Your task to perform on an android device: What's on my calendar today? Image 0: 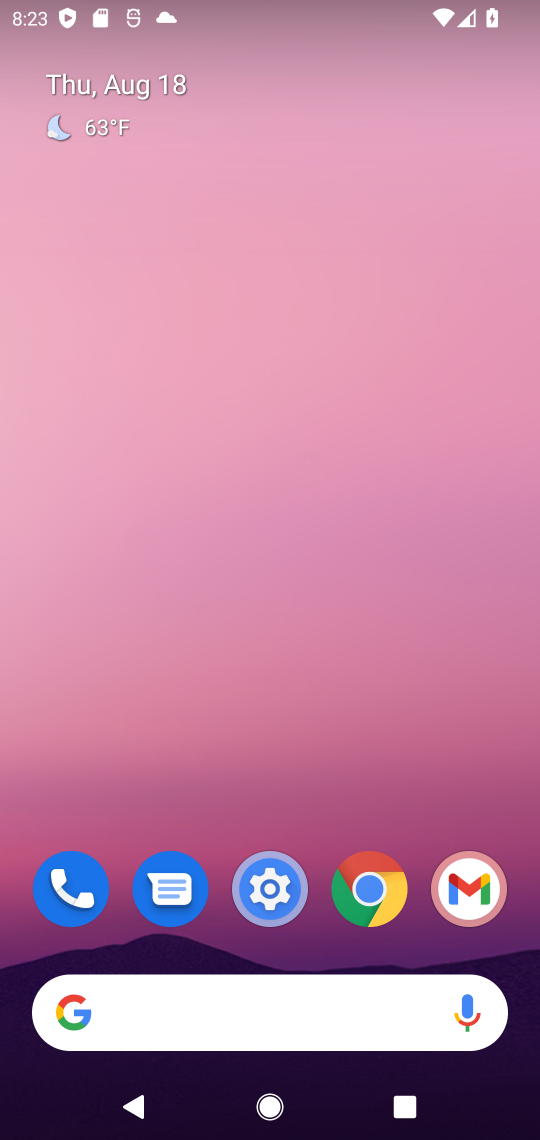
Step 0: drag from (315, 953) to (269, 212)
Your task to perform on an android device: What's on my calendar today? Image 1: 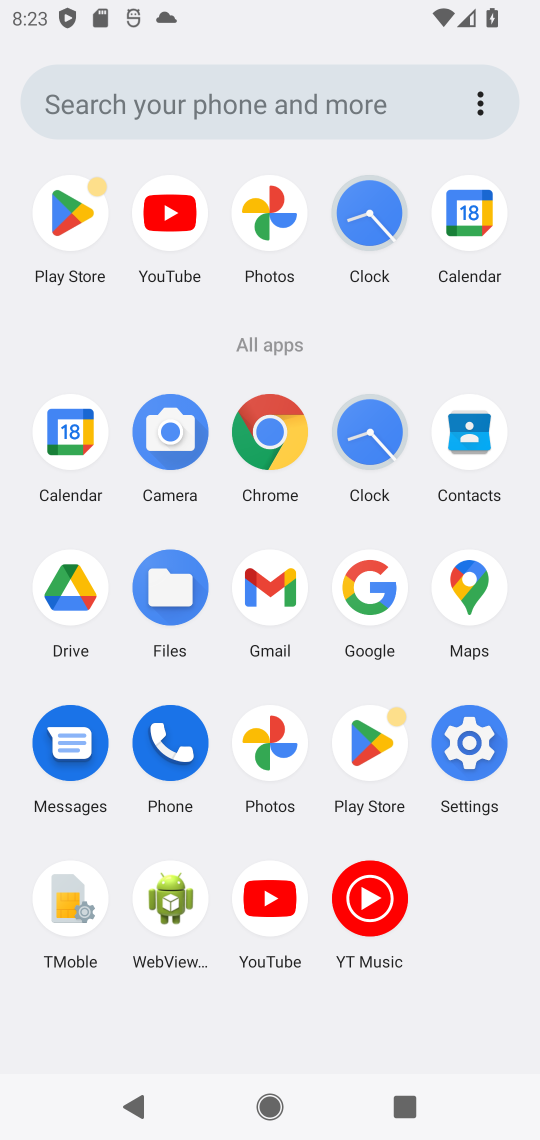
Step 1: drag from (312, 953) to (443, 215)
Your task to perform on an android device: What's on my calendar today? Image 2: 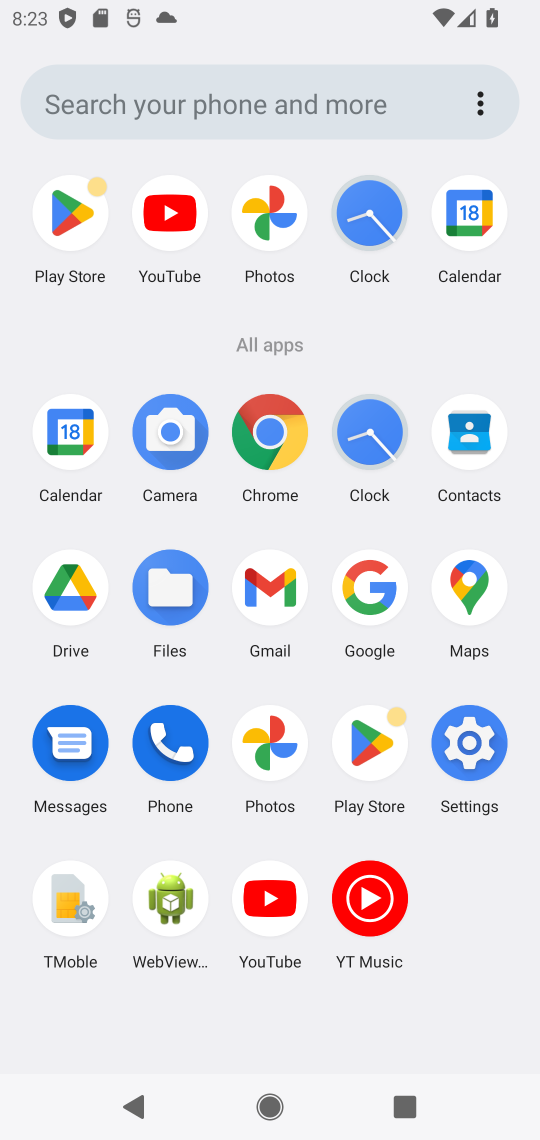
Step 2: click (473, 225)
Your task to perform on an android device: What's on my calendar today? Image 3: 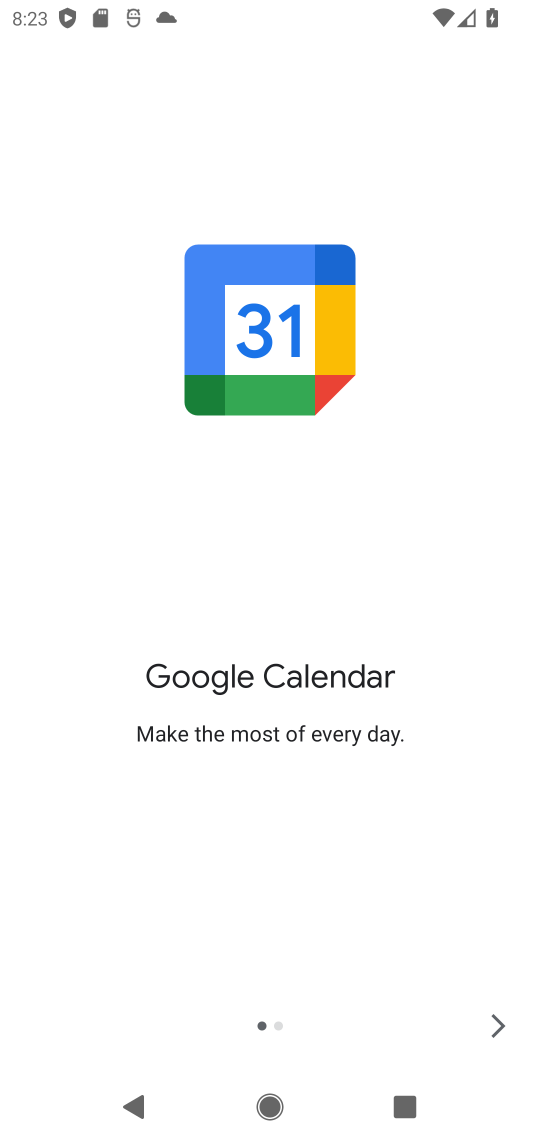
Step 3: click (494, 1031)
Your task to perform on an android device: What's on my calendar today? Image 4: 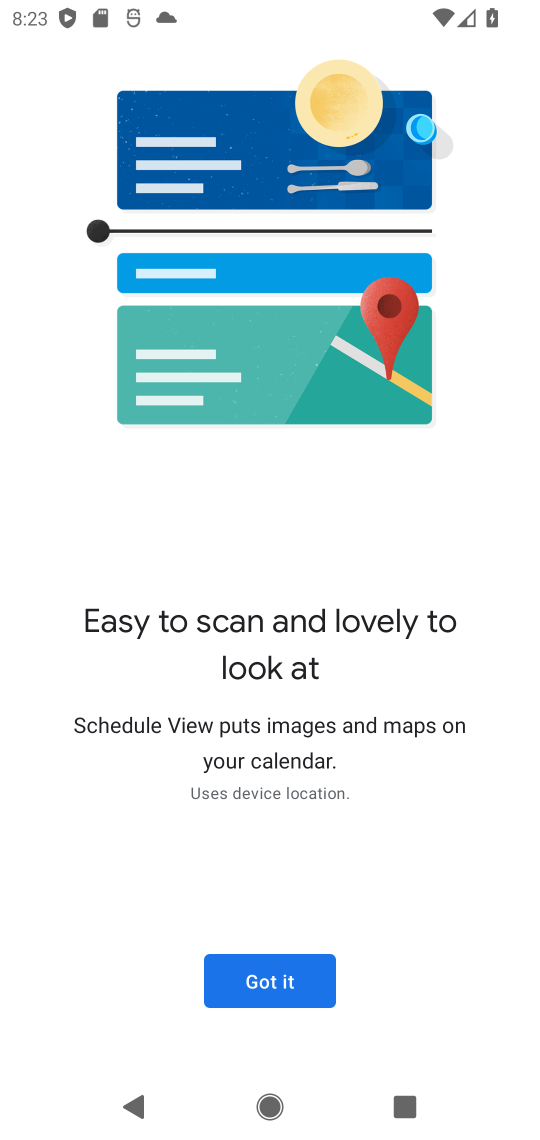
Step 4: click (262, 972)
Your task to perform on an android device: What's on my calendar today? Image 5: 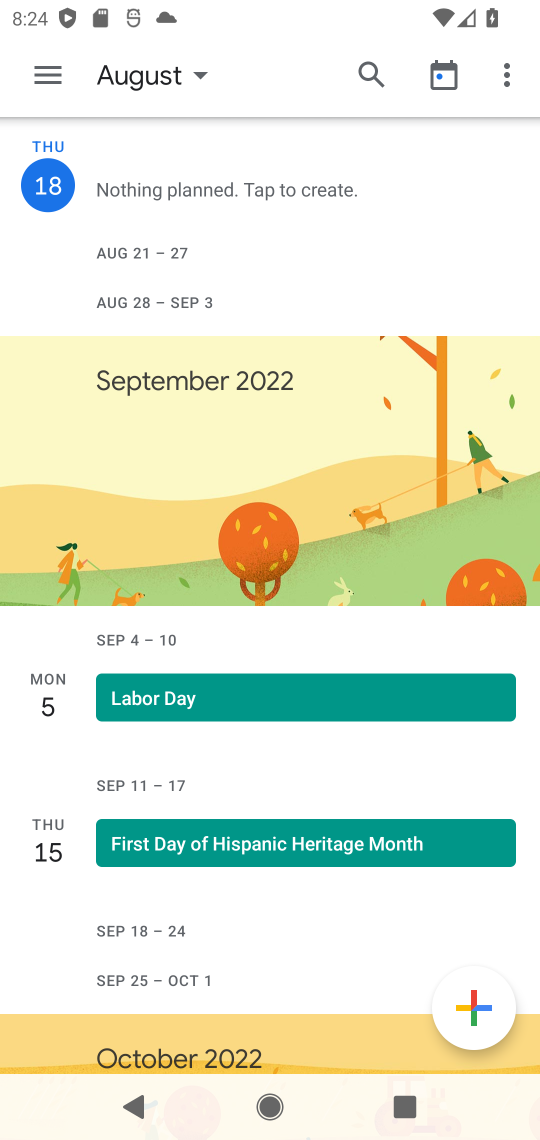
Step 5: click (191, 81)
Your task to perform on an android device: What's on my calendar today? Image 6: 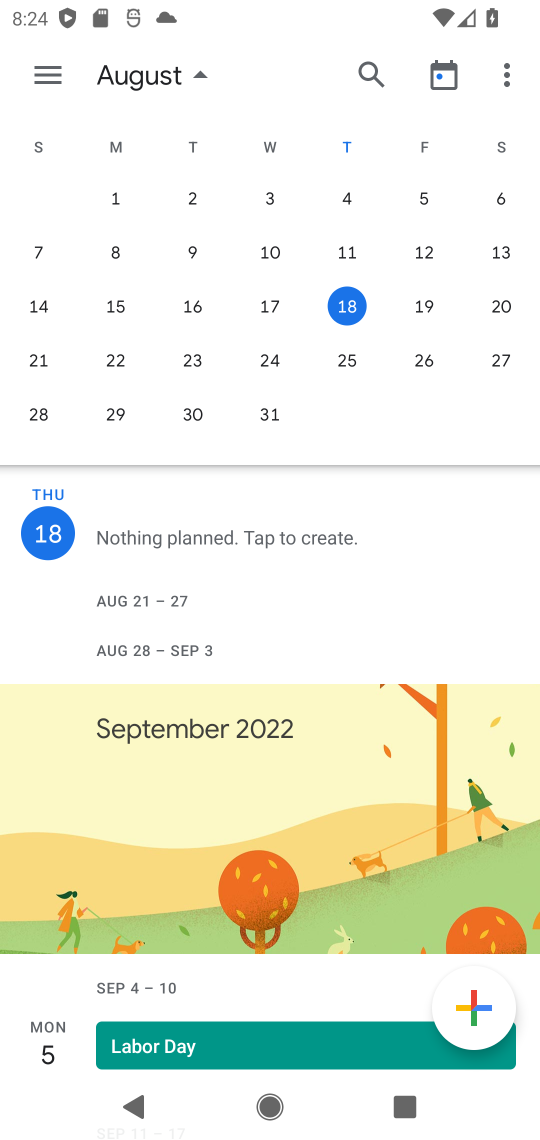
Step 6: click (348, 302)
Your task to perform on an android device: What's on my calendar today? Image 7: 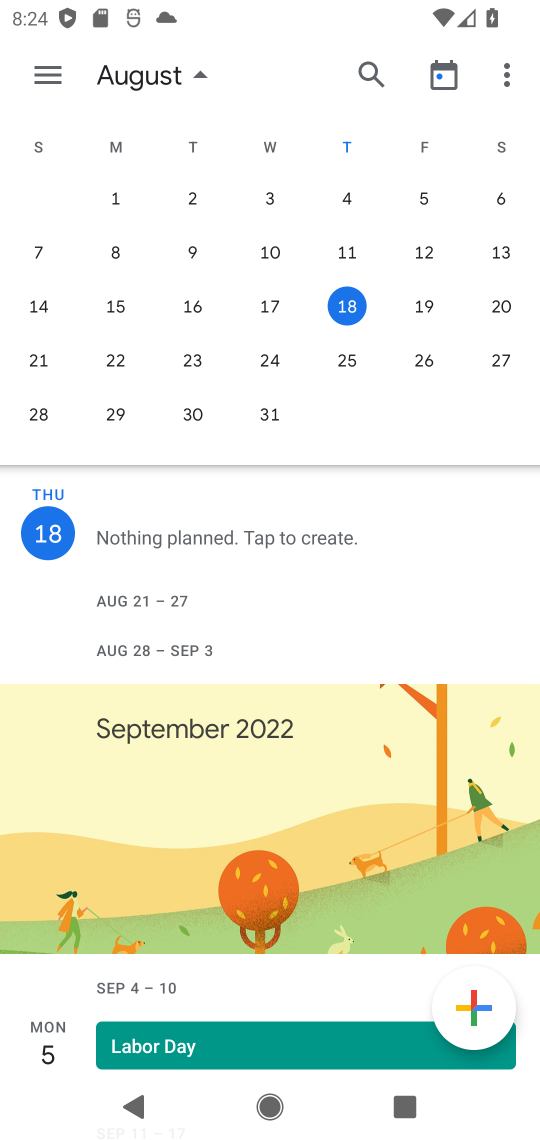
Step 7: task complete